Your task to perform on an android device: Go to Wikipedia Image 0: 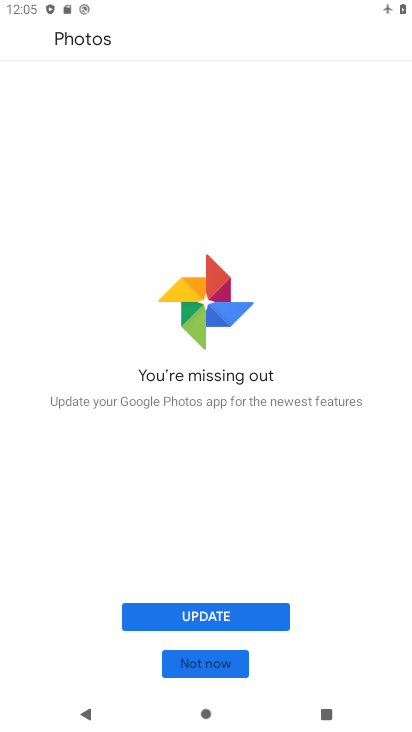
Step 0: press home button
Your task to perform on an android device: Go to Wikipedia Image 1: 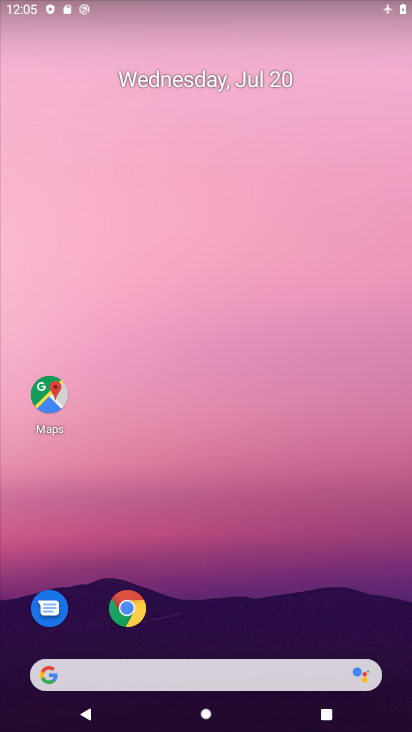
Step 1: click (130, 608)
Your task to perform on an android device: Go to Wikipedia Image 2: 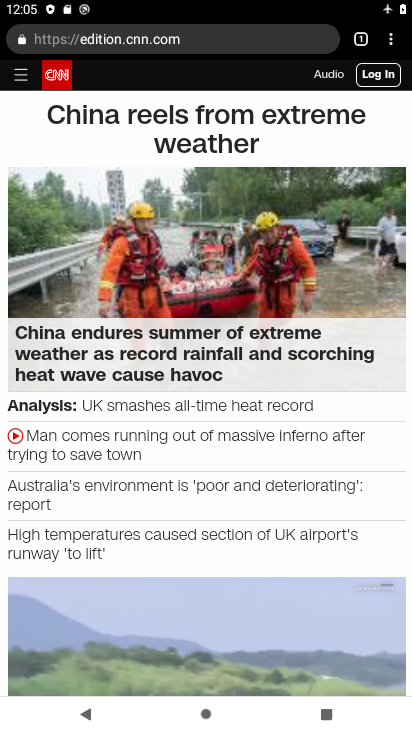
Step 2: click (233, 46)
Your task to perform on an android device: Go to Wikipedia Image 3: 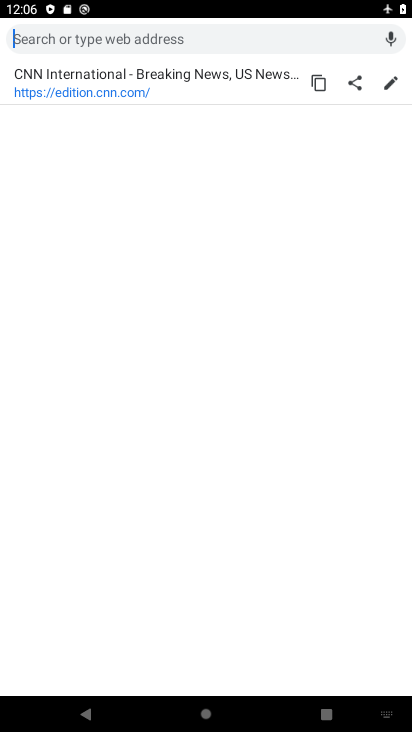
Step 3: type "Wikipedia"
Your task to perform on an android device: Go to Wikipedia Image 4: 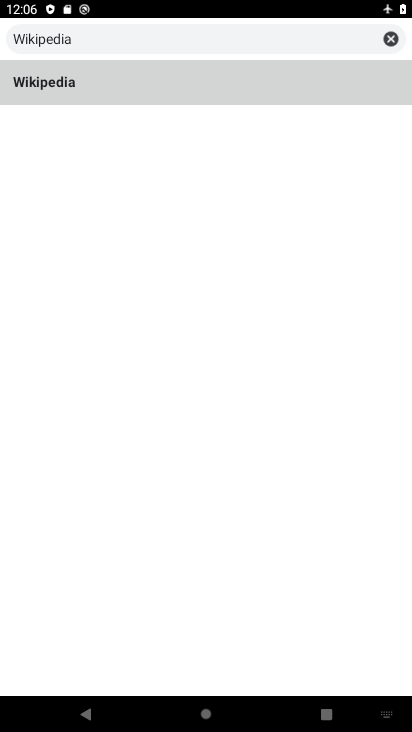
Step 4: click (66, 82)
Your task to perform on an android device: Go to Wikipedia Image 5: 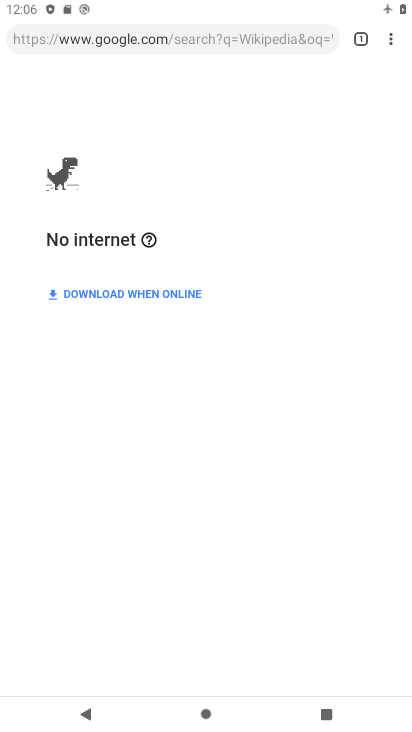
Step 5: task complete